Your task to perform on an android device: Turn on the flashlight Image 0: 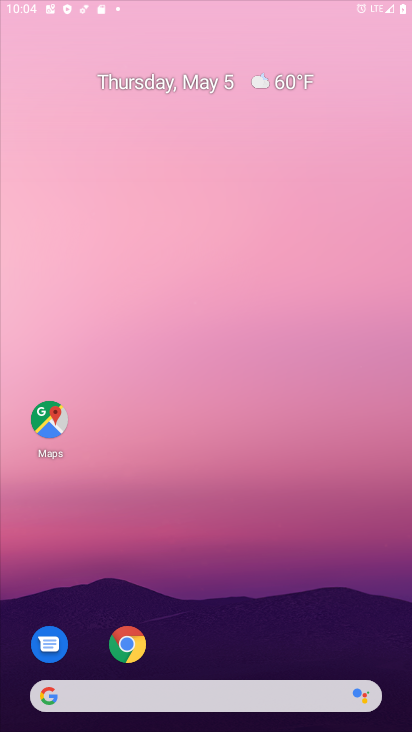
Step 0: click (256, 180)
Your task to perform on an android device: Turn on the flashlight Image 1: 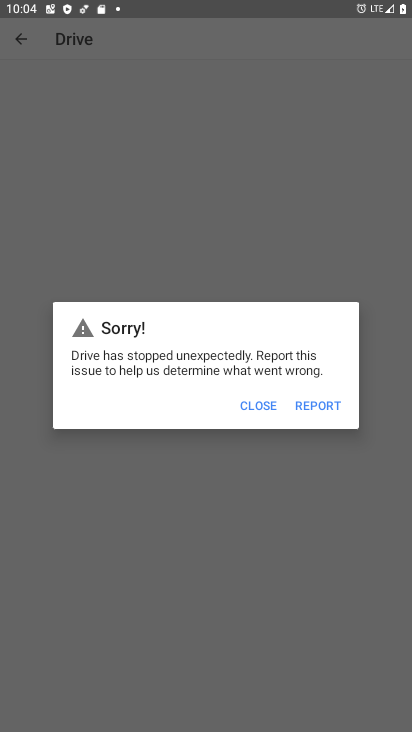
Step 1: press home button
Your task to perform on an android device: Turn on the flashlight Image 2: 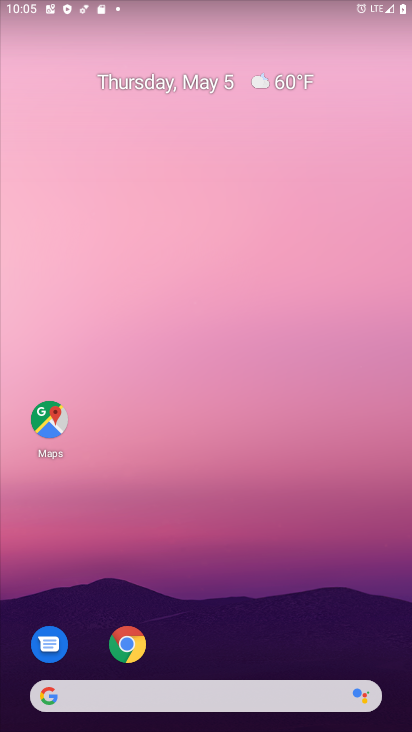
Step 2: drag from (256, 583) to (292, 121)
Your task to perform on an android device: Turn on the flashlight Image 3: 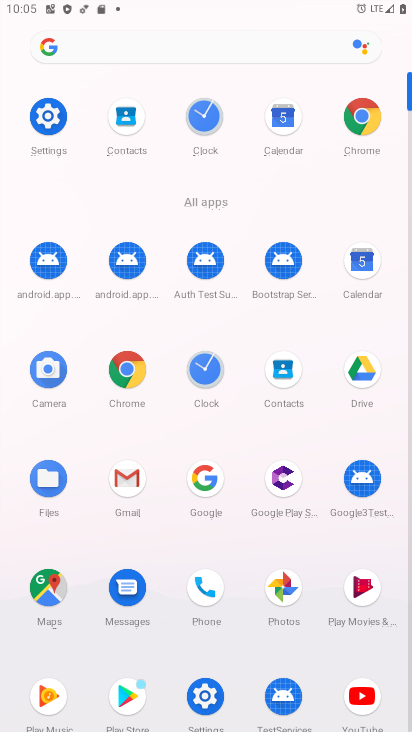
Step 3: click (45, 127)
Your task to perform on an android device: Turn on the flashlight Image 4: 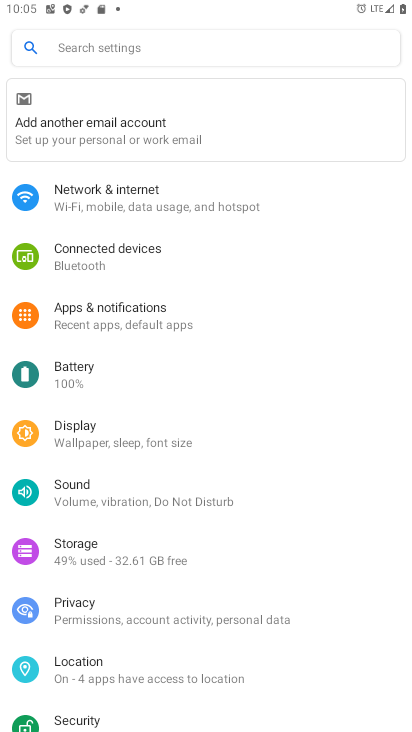
Step 4: click (161, 48)
Your task to perform on an android device: Turn on the flashlight Image 5: 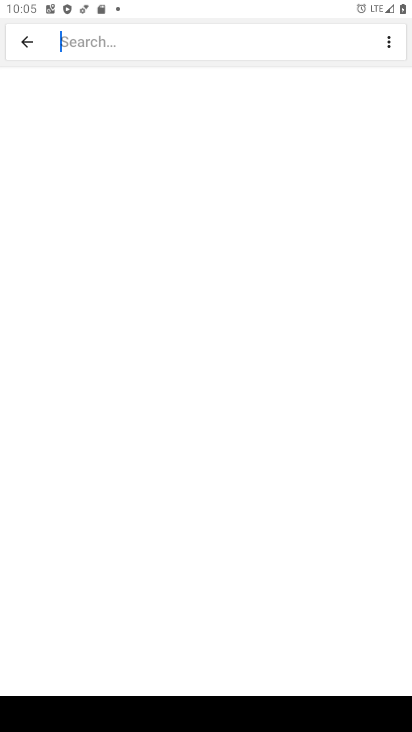
Step 5: type "flashlight"
Your task to perform on an android device: Turn on the flashlight Image 6: 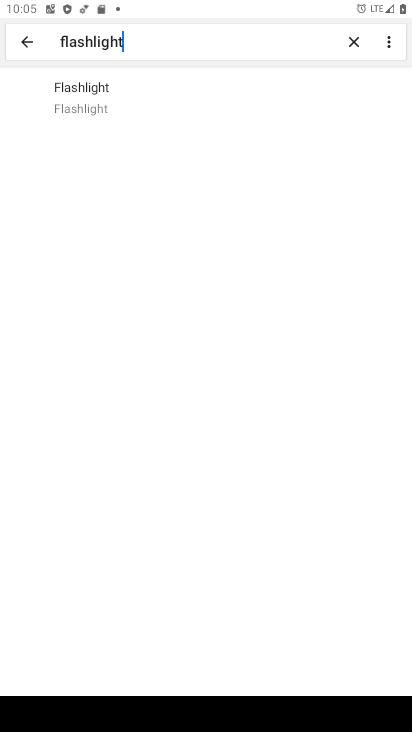
Step 6: click (121, 98)
Your task to perform on an android device: Turn on the flashlight Image 7: 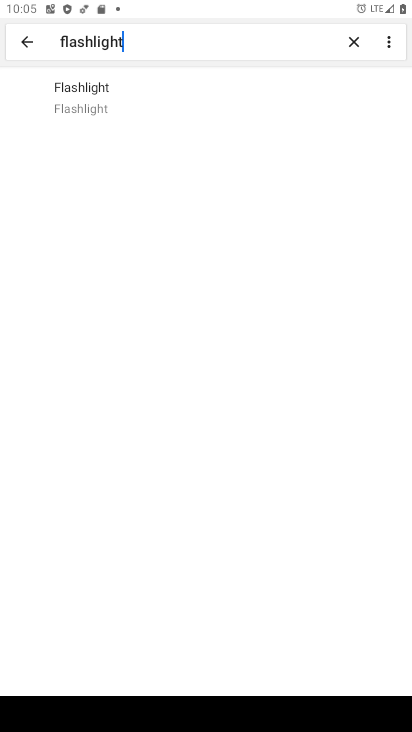
Step 7: task complete